Your task to perform on an android device: turn pop-ups off in chrome Image 0: 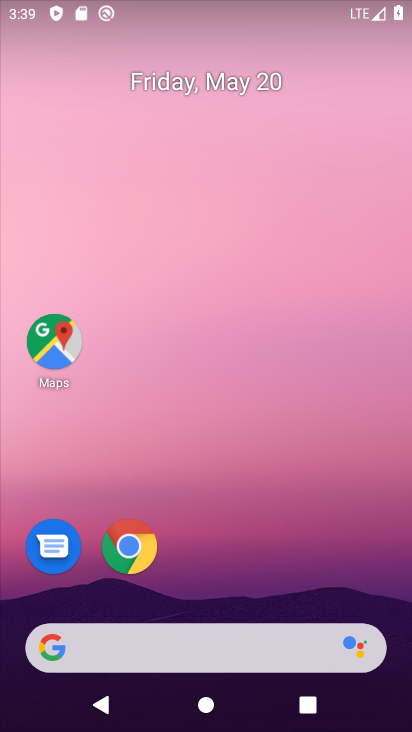
Step 0: click (130, 557)
Your task to perform on an android device: turn pop-ups off in chrome Image 1: 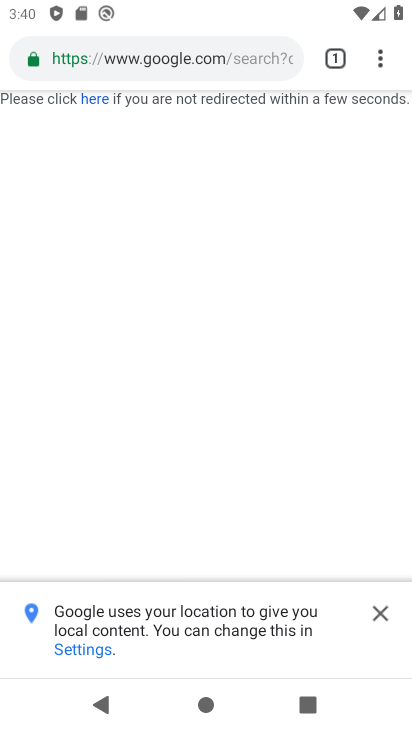
Step 1: drag from (377, 55) to (394, 474)
Your task to perform on an android device: turn pop-ups off in chrome Image 2: 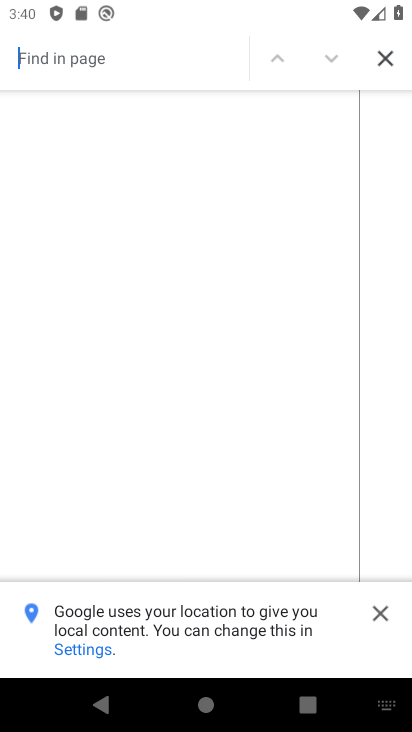
Step 2: click (391, 58)
Your task to perform on an android device: turn pop-ups off in chrome Image 3: 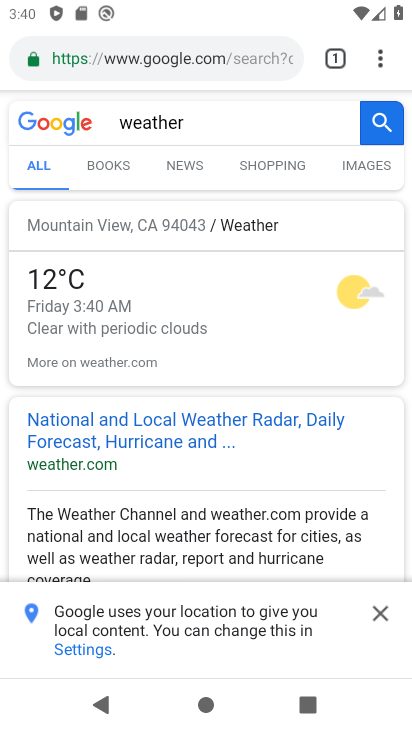
Step 3: drag from (391, 57) to (215, 584)
Your task to perform on an android device: turn pop-ups off in chrome Image 4: 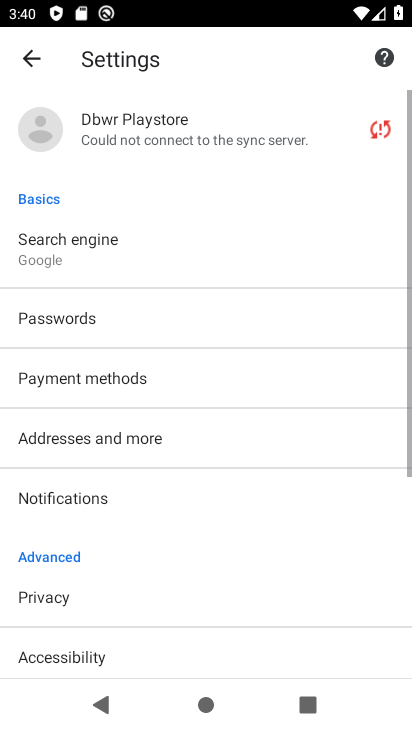
Step 4: drag from (210, 563) to (272, 284)
Your task to perform on an android device: turn pop-ups off in chrome Image 5: 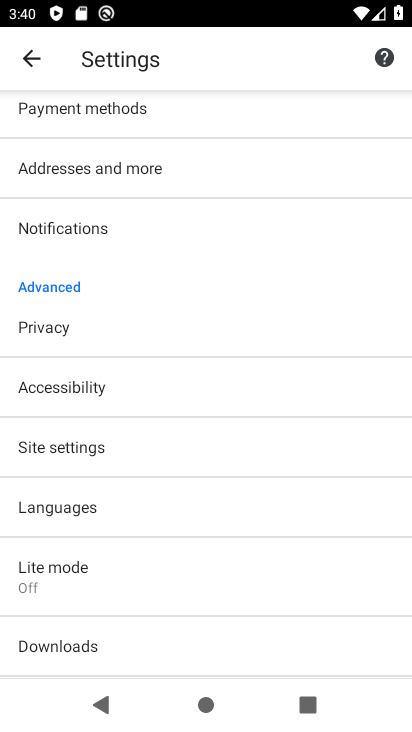
Step 5: click (103, 440)
Your task to perform on an android device: turn pop-ups off in chrome Image 6: 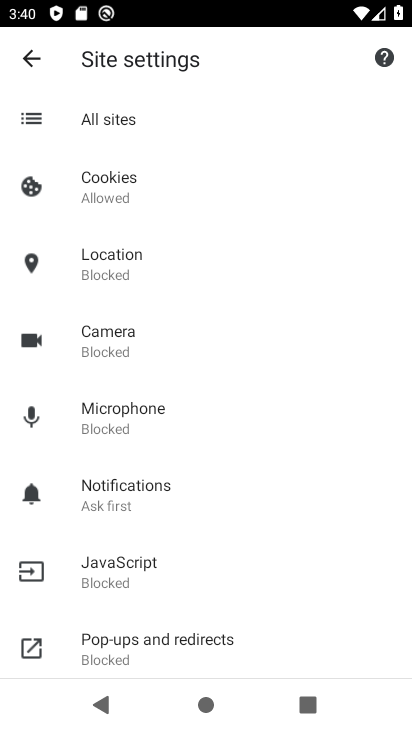
Step 6: drag from (188, 507) to (310, 111)
Your task to perform on an android device: turn pop-ups off in chrome Image 7: 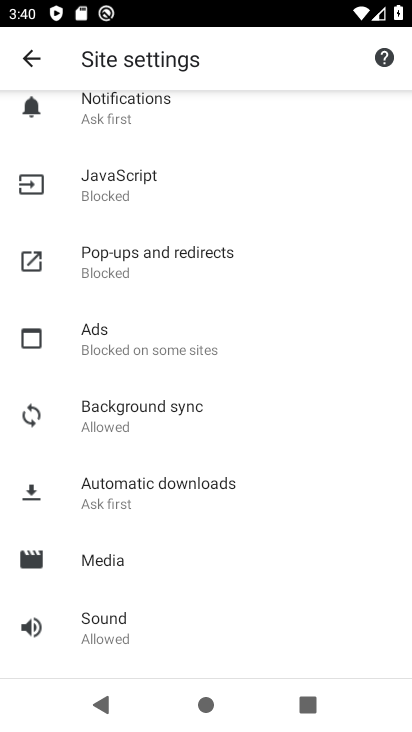
Step 7: click (158, 255)
Your task to perform on an android device: turn pop-ups off in chrome Image 8: 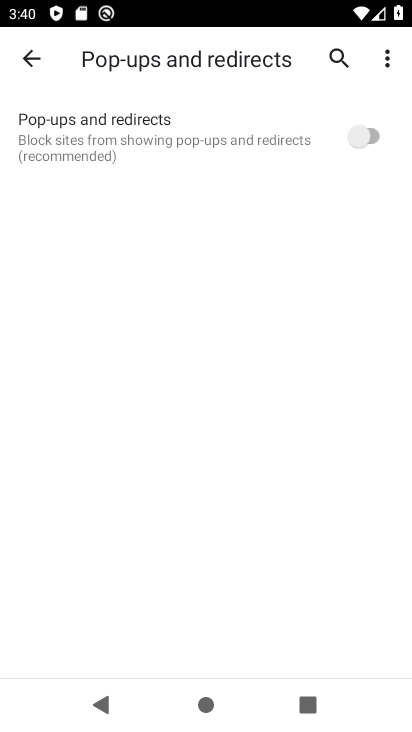
Step 8: task complete